Your task to perform on an android device: toggle notifications settings in the gmail app Image 0: 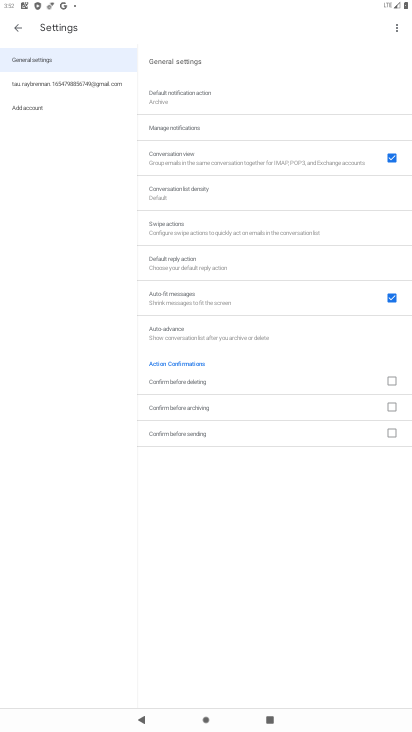
Step 0: press home button
Your task to perform on an android device: toggle notifications settings in the gmail app Image 1: 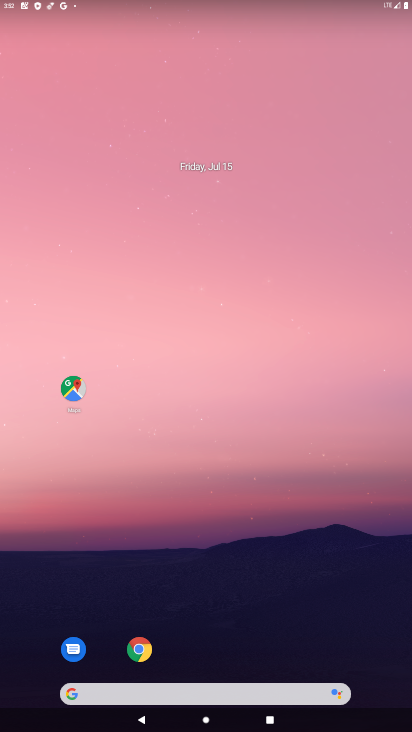
Step 1: drag from (215, 637) to (207, 295)
Your task to perform on an android device: toggle notifications settings in the gmail app Image 2: 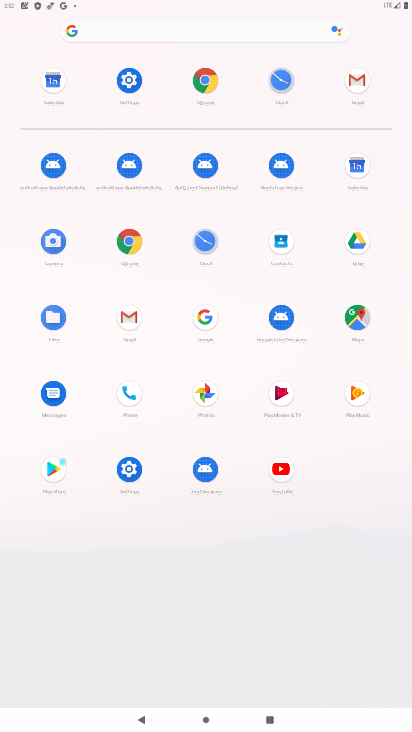
Step 2: click (138, 330)
Your task to perform on an android device: toggle notifications settings in the gmail app Image 3: 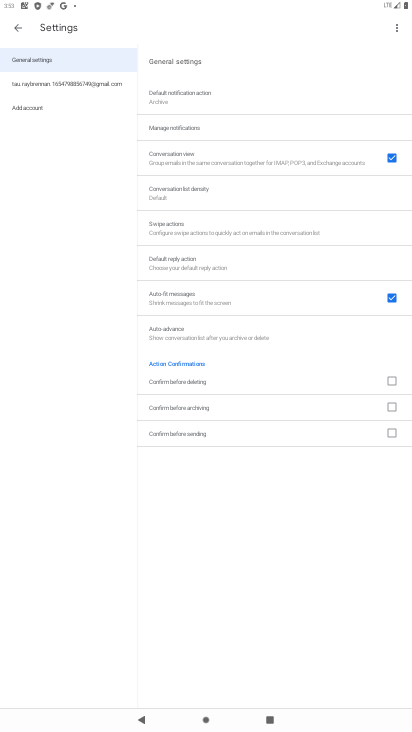
Step 3: click (30, 82)
Your task to perform on an android device: toggle notifications settings in the gmail app Image 4: 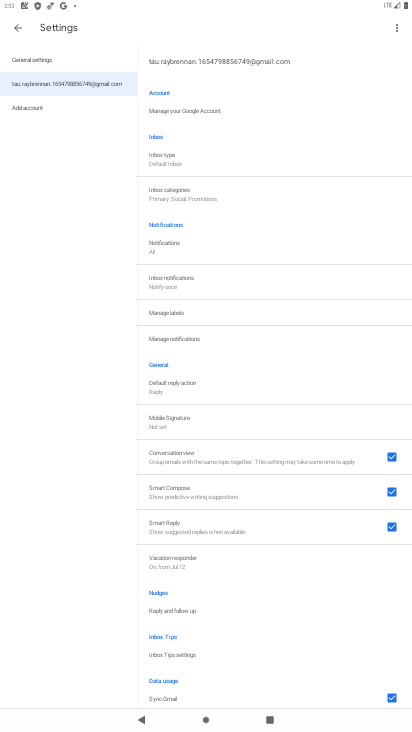
Step 4: click (202, 342)
Your task to perform on an android device: toggle notifications settings in the gmail app Image 5: 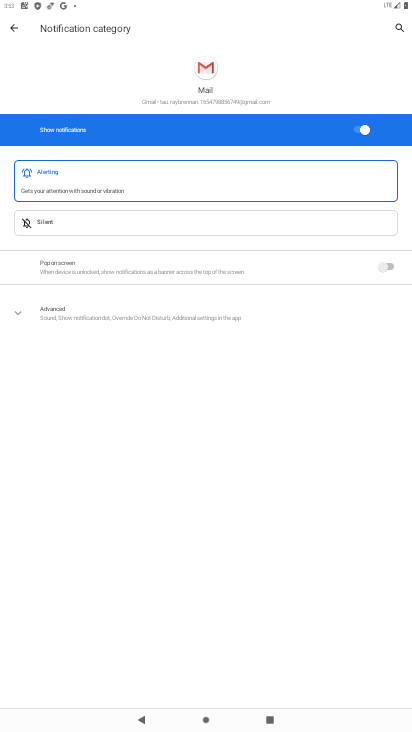
Step 5: click (354, 130)
Your task to perform on an android device: toggle notifications settings in the gmail app Image 6: 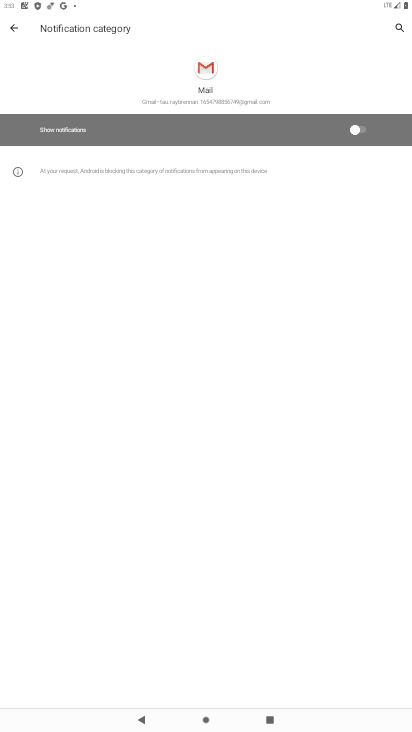
Step 6: task complete